Your task to perform on an android device: turn off data saver in the chrome app Image 0: 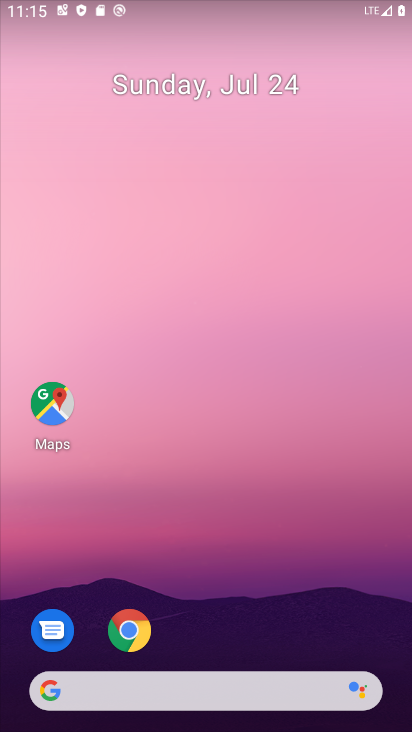
Step 0: click (139, 619)
Your task to perform on an android device: turn off data saver in the chrome app Image 1: 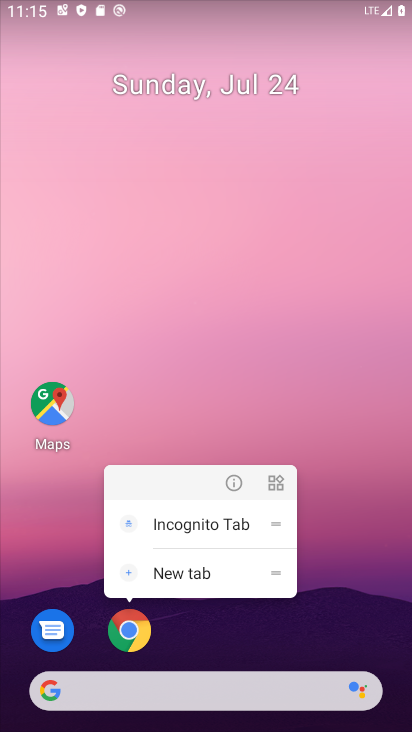
Step 1: click (126, 631)
Your task to perform on an android device: turn off data saver in the chrome app Image 2: 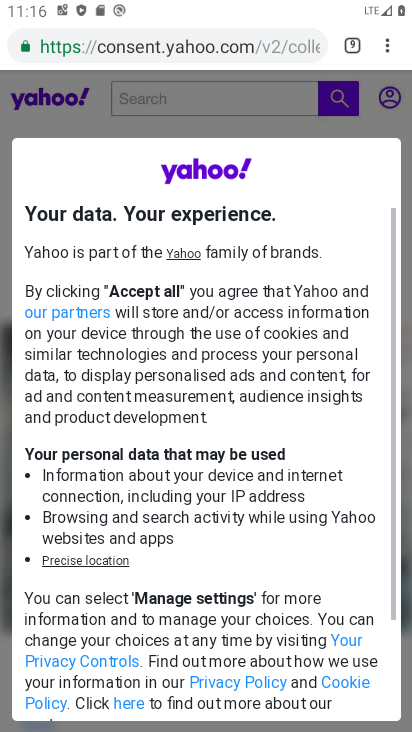
Step 2: click (382, 36)
Your task to perform on an android device: turn off data saver in the chrome app Image 3: 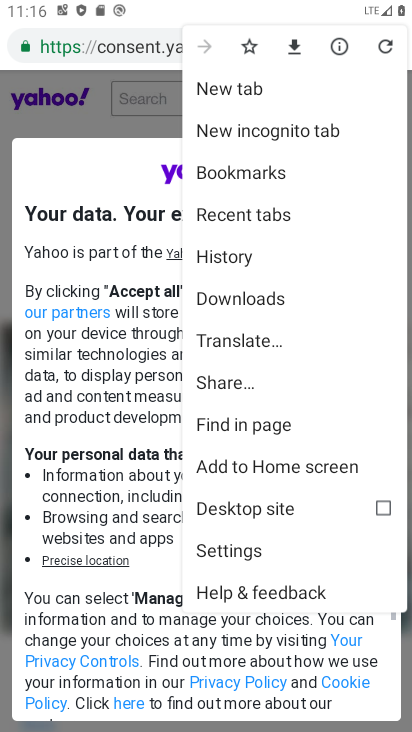
Step 3: click (236, 561)
Your task to perform on an android device: turn off data saver in the chrome app Image 4: 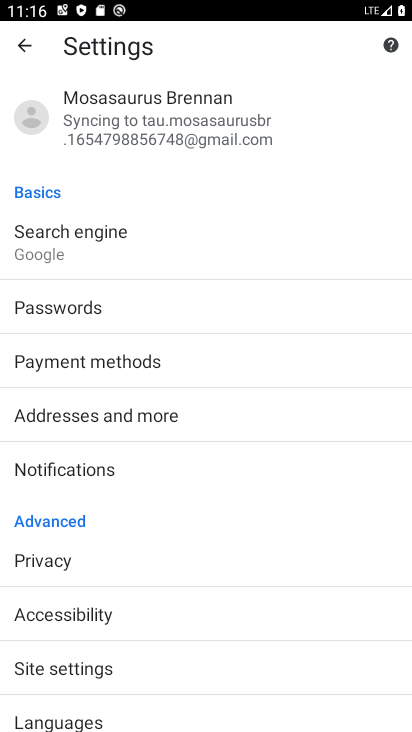
Step 4: drag from (96, 671) to (90, 316)
Your task to perform on an android device: turn off data saver in the chrome app Image 5: 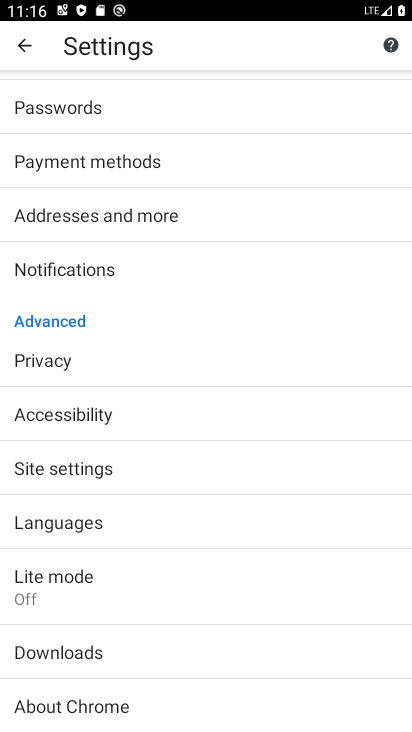
Step 5: click (107, 587)
Your task to perform on an android device: turn off data saver in the chrome app Image 6: 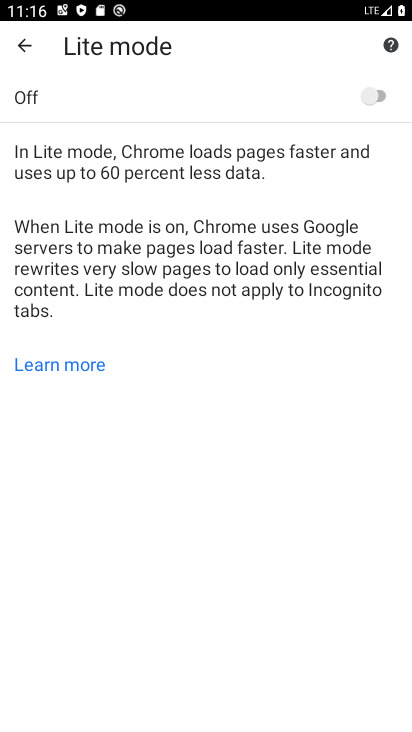
Step 6: task complete